Your task to perform on an android device: make emails show in primary in the gmail app Image 0: 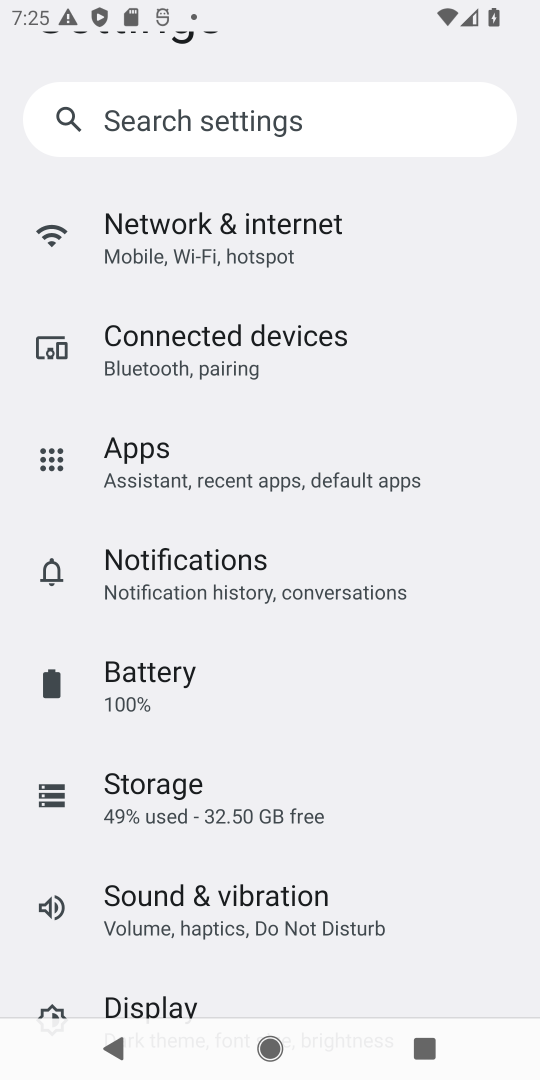
Step 0: press home button
Your task to perform on an android device: make emails show in primary in the gmail app Image 1: 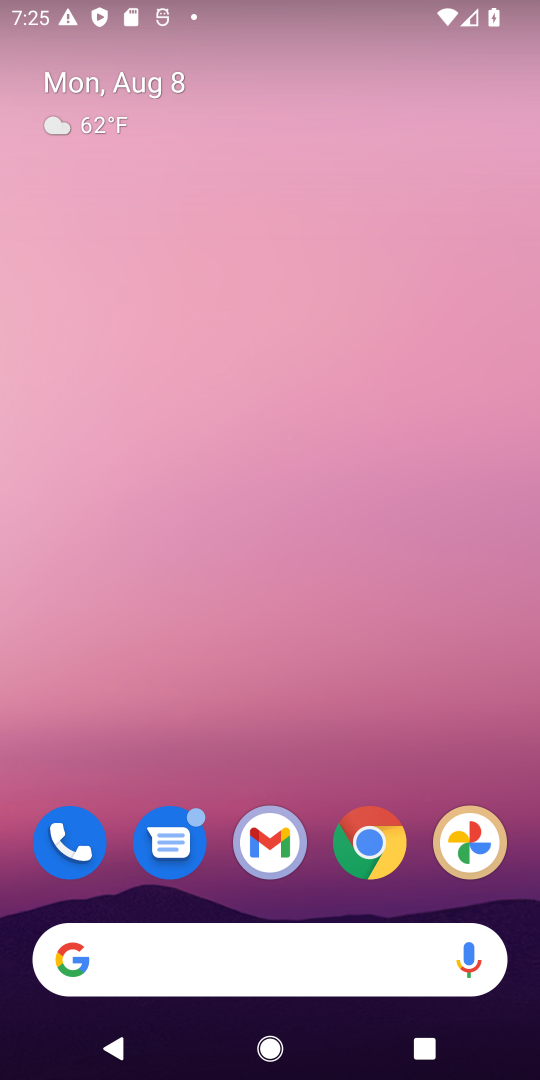
Step 1: drag from (229, 769) to (294, 0)
Your task to perform on an android device: make emails show in primary in the gmail app Image 2: 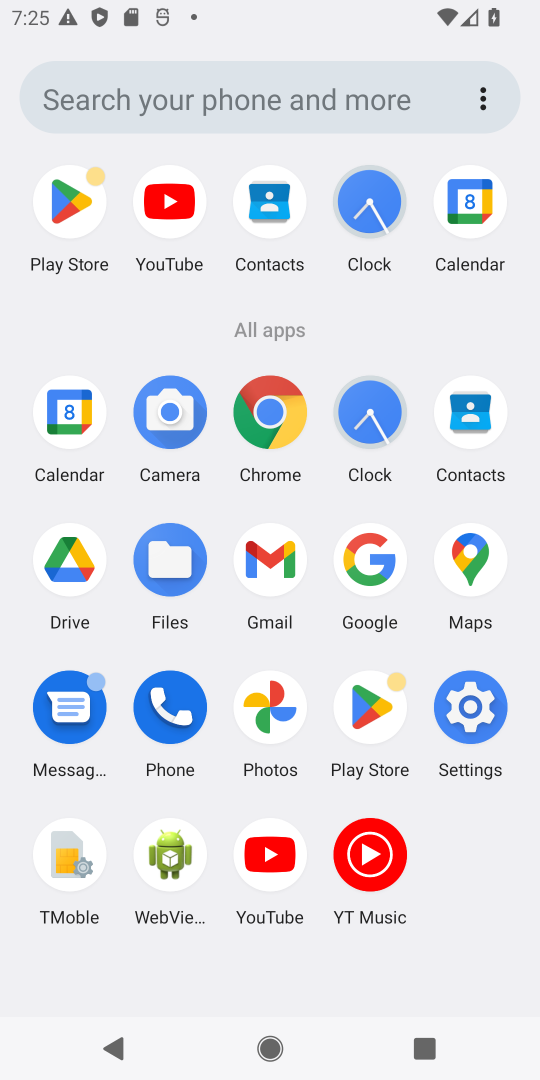
Step 2: click (280, 550)
Your task to perform on an android device: make emails show in primary in the gmail app Image 3: 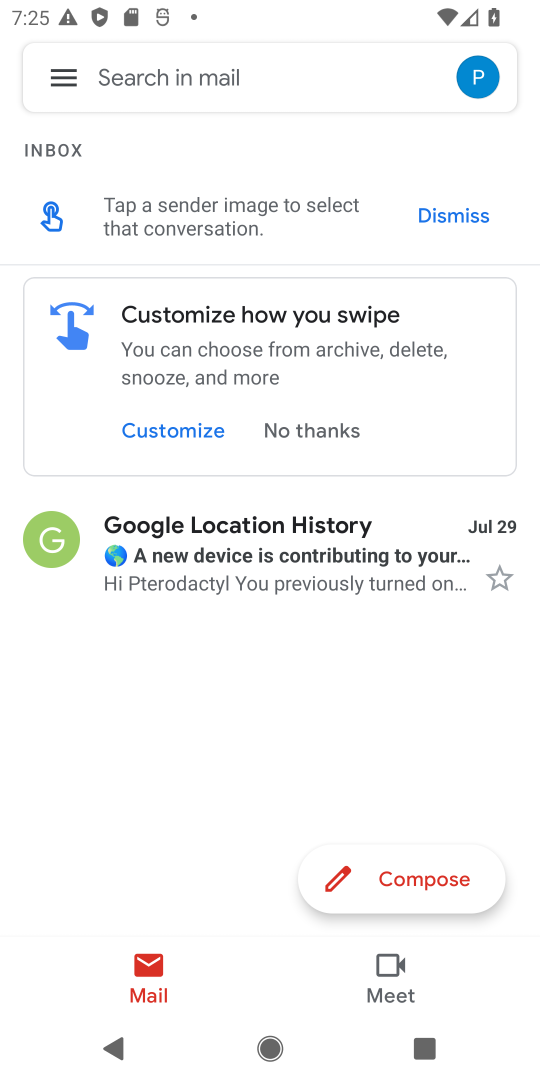
Step 3: click (62, 78)
Your task to perform on an android device: make emails show in primary in the gmail app Image 4: 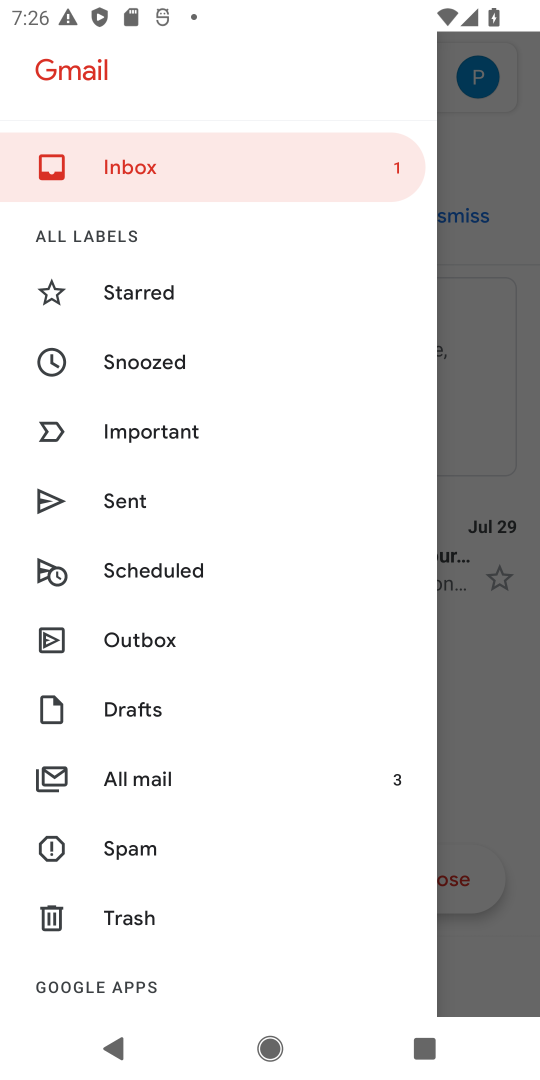
Step 4: drag from (213, 885) to (245, 292)
Your task to perform on an android device: make emails show in primary in the gmail app Image 5: 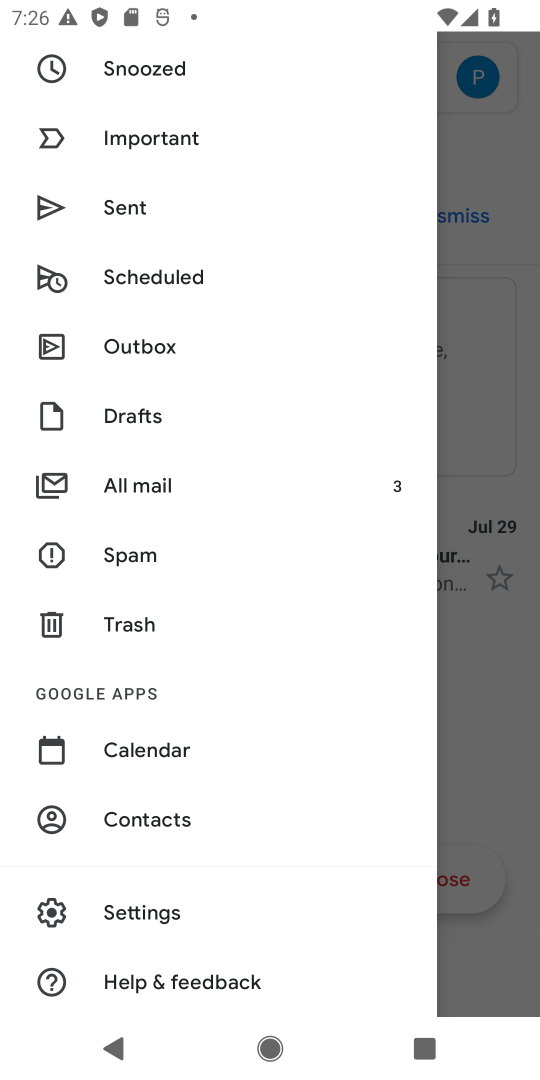
Step 5: click (152, 917)
Your task to perform on an android device: make emails show in primary in the gmail app Image 6: 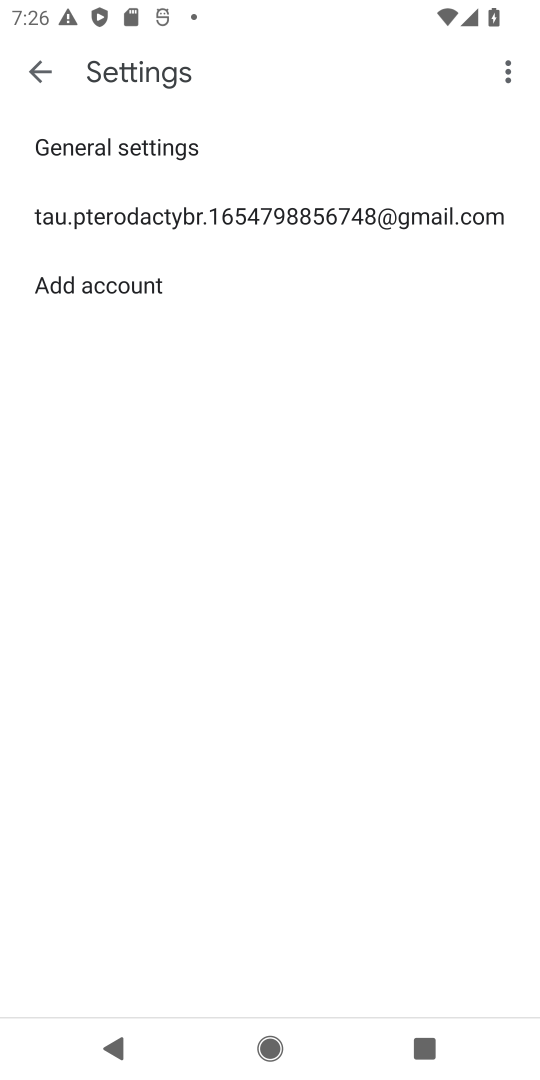
Step 6: click (243, 218)
Your task to perform on an android device: make emails show in primary in the gmail app Image 7: 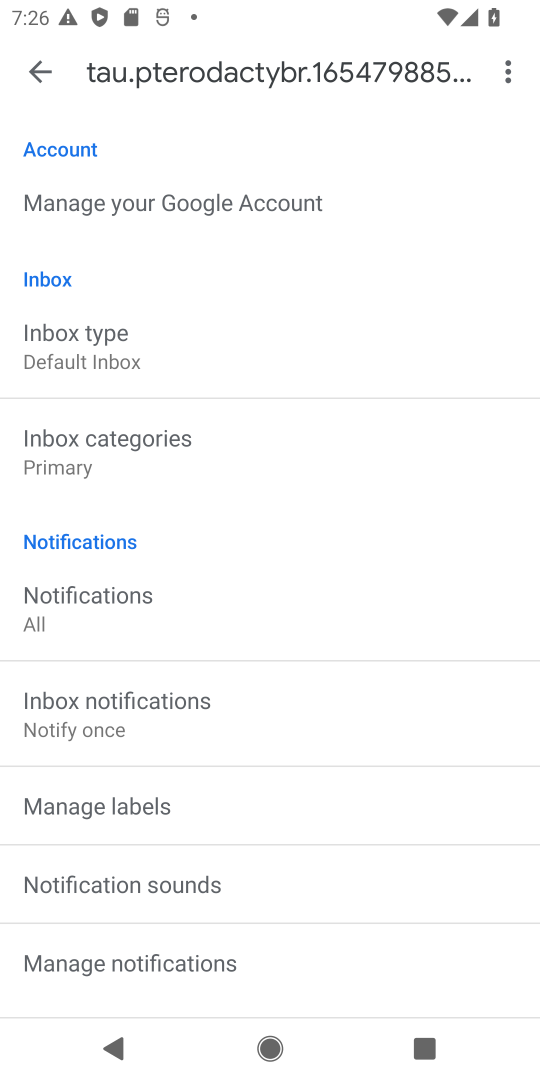
Step 7: click (125, 463)
Your task to perform on an android device: make emails show in primary in the gmail app Image 8: 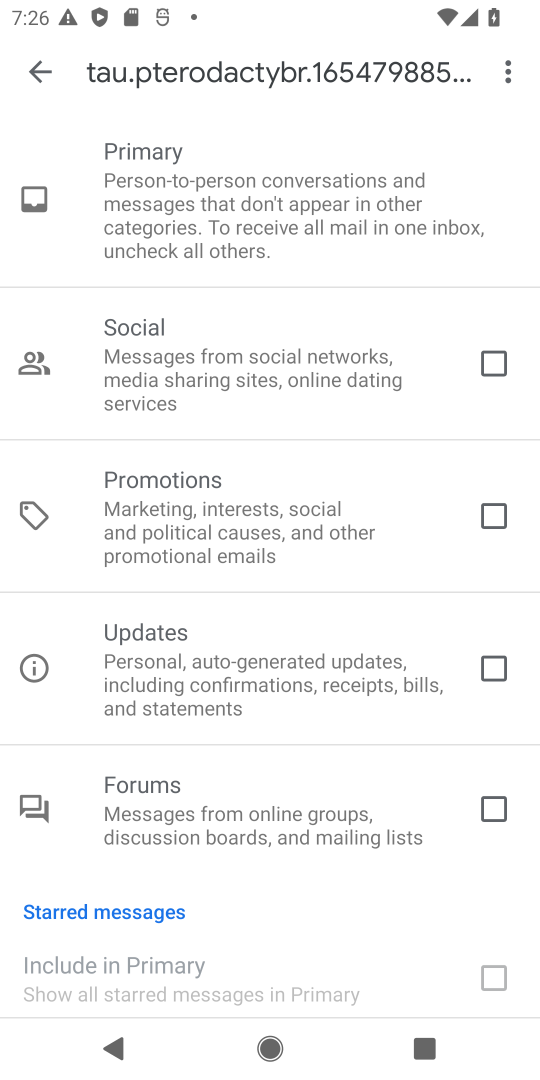
Step 8: task complete